Your task to perform on an android device: refresh tabs in the chrome app Image 0: 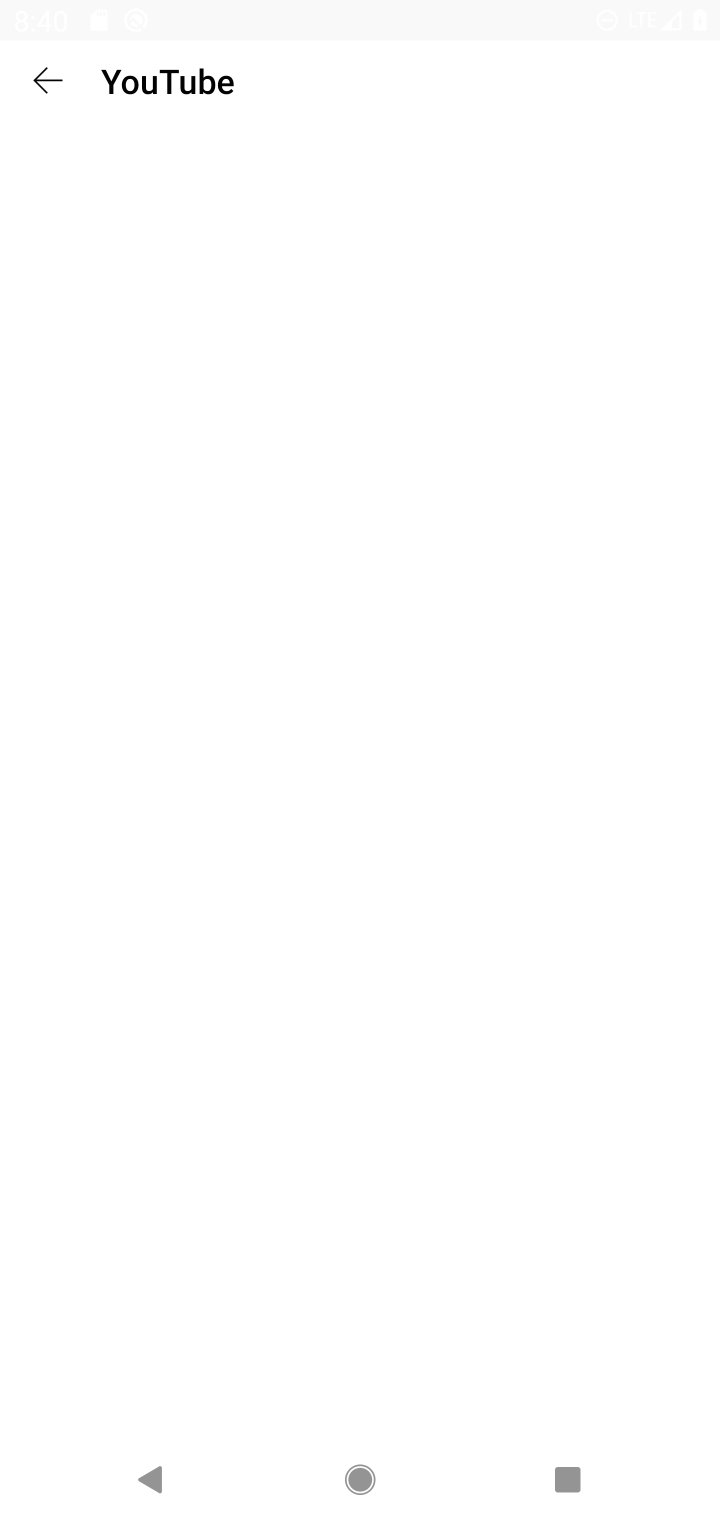
Step 0: press home button
Your task to perform on an android device: refresh tabs in the chrome app Image 1: 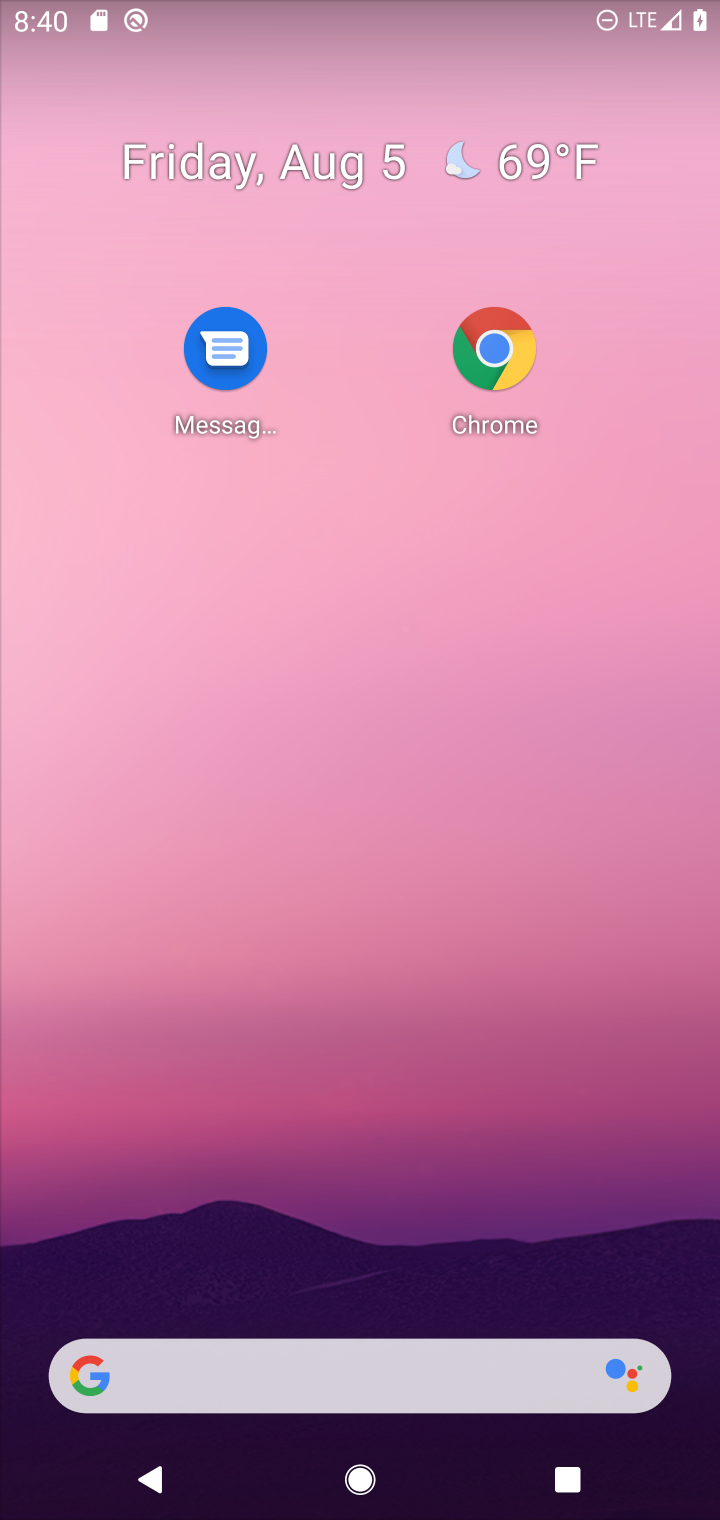
Step 1: drag from (433, 1429) to (470, 195)
Your task to perform on an android device: refresh tabs in the chrome app Image 2: 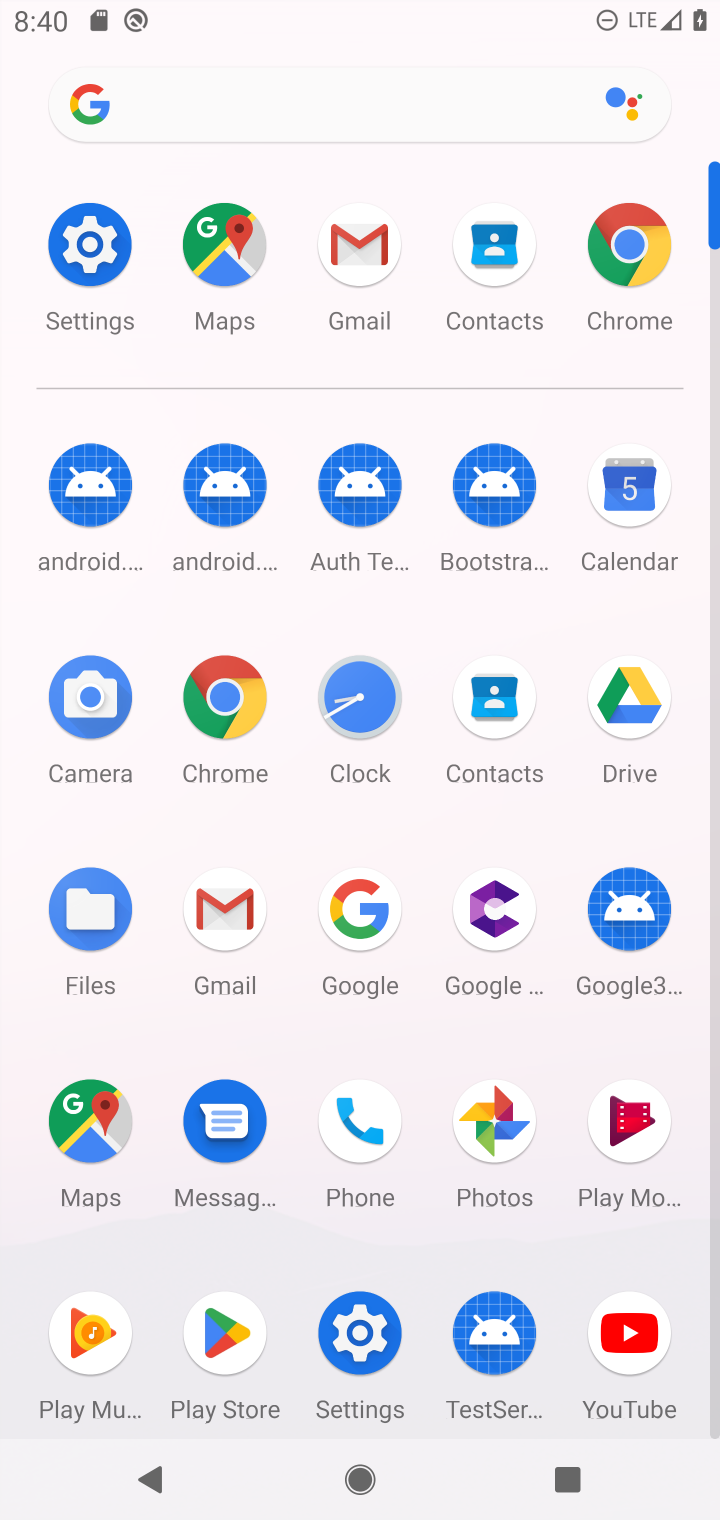
Step 2: click (624, 275)
Your task to perform on an android device: refresh tabs in the chrome app Image 3: 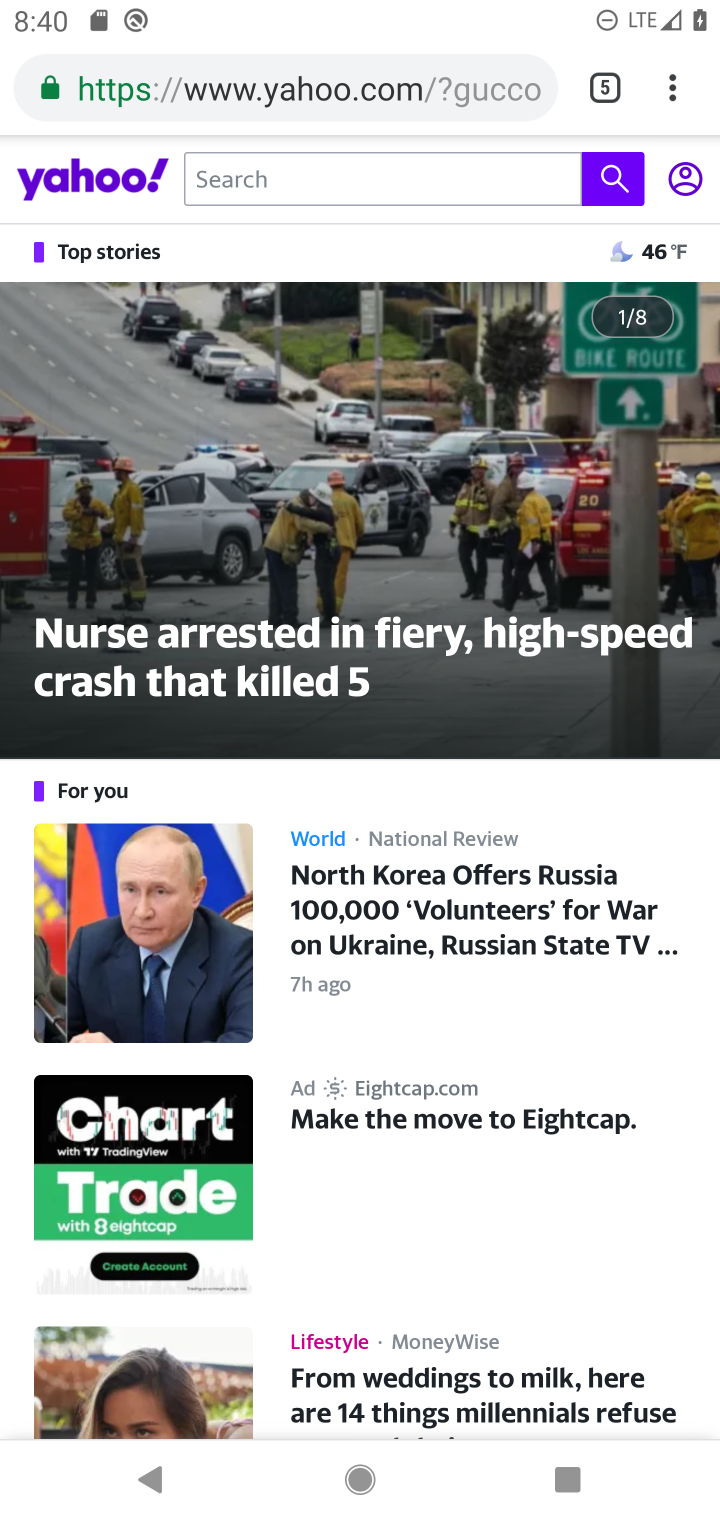
Step 3: click (667, 87)
Your task to perform on an android device: refresh tabs in the chrome app Image 4: 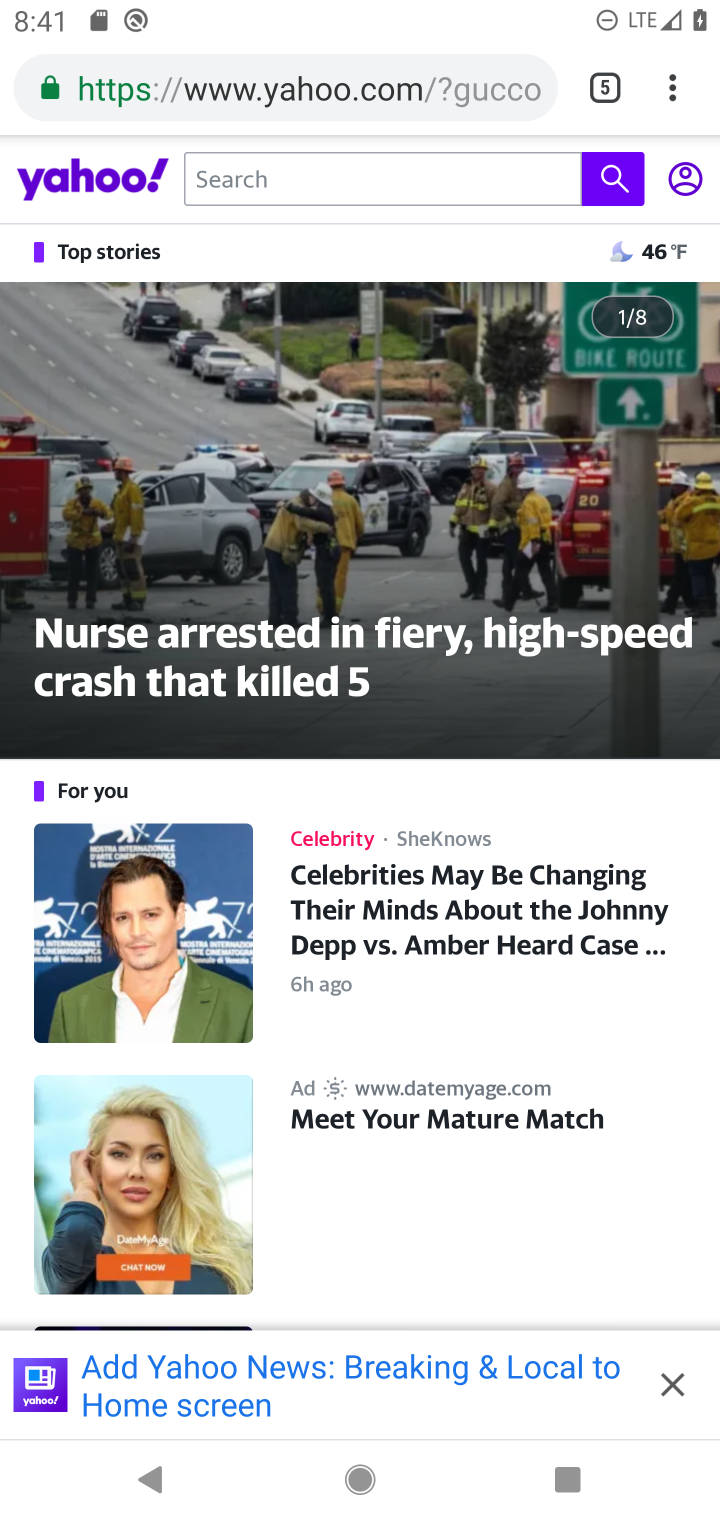
Step 4: task complete